Your task to perform on an android device: turn on notifications settings in the gmail app Image 0: 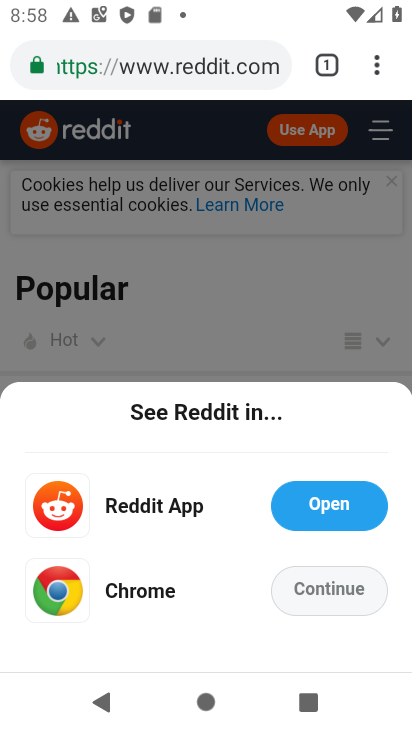
Step 0: press home button
Your task to perform on an android device: turn on notifications settings in the gmail app Image 1: 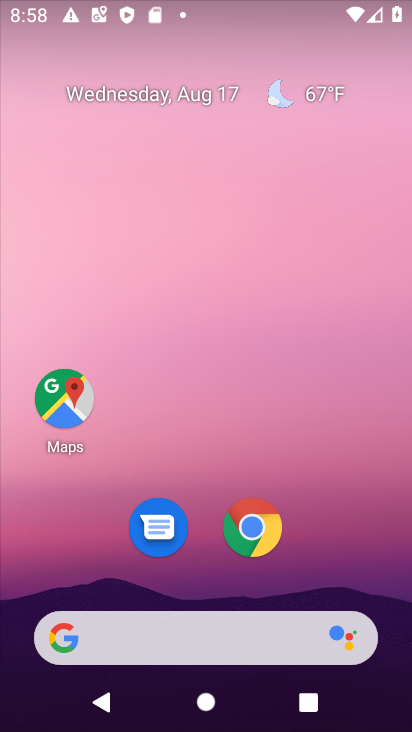
Step 1: drag from (192, 597) to (247, 109)
Your task to perform on an android device: turn on notifications settings in the gmail app Image 2: 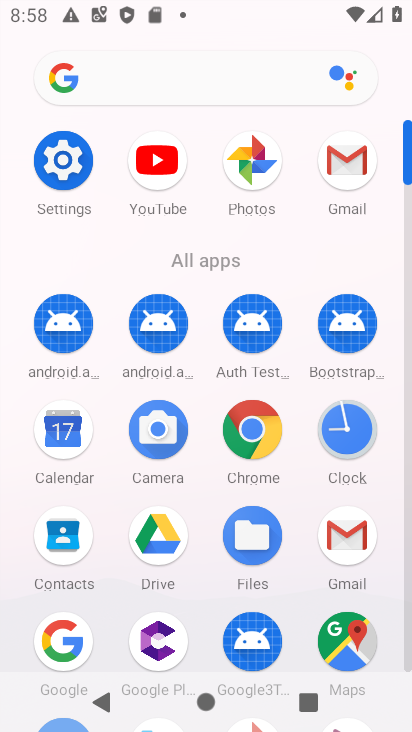
Step 2: click (69, 157)
Your task to perform on an android device: turn on notifications settings in the gmail app Image 3: 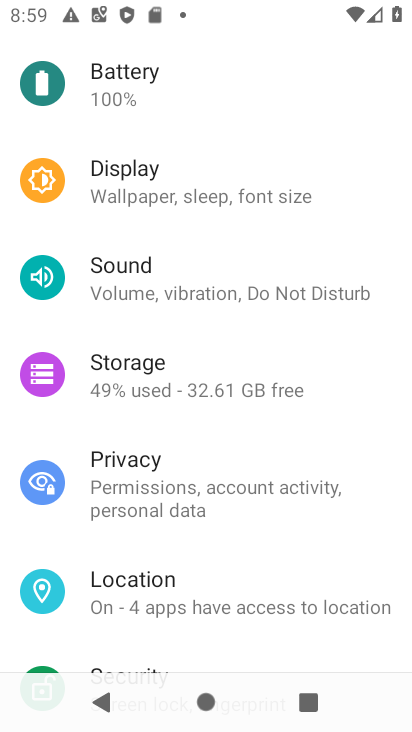
Step 3: drag from (136, 123) to (67, 615)
Your task to perform on an android device: turn on notifications settings in the gmail app Image 4: 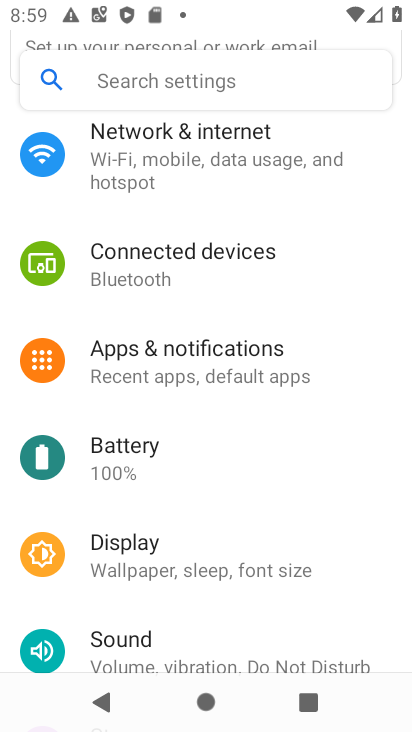
Step 4: click (185, 374)
Your task to perform on an android device: turn on notifications settings in the gmail app Image 5: 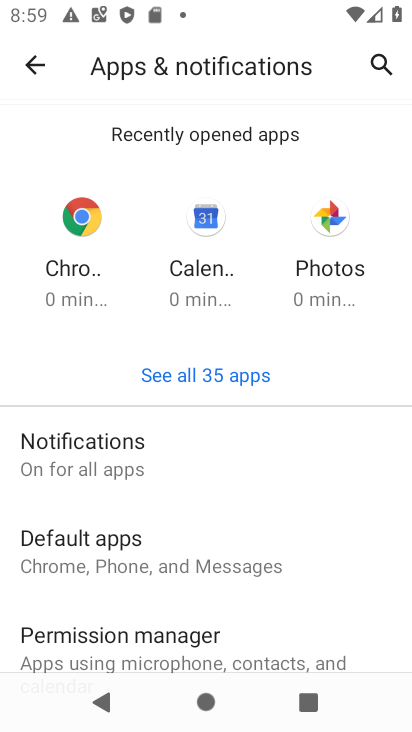
Step 5: click (152, 446)
Your task to perform on an android device: turn on notifications settings in the gmail app Image 6: 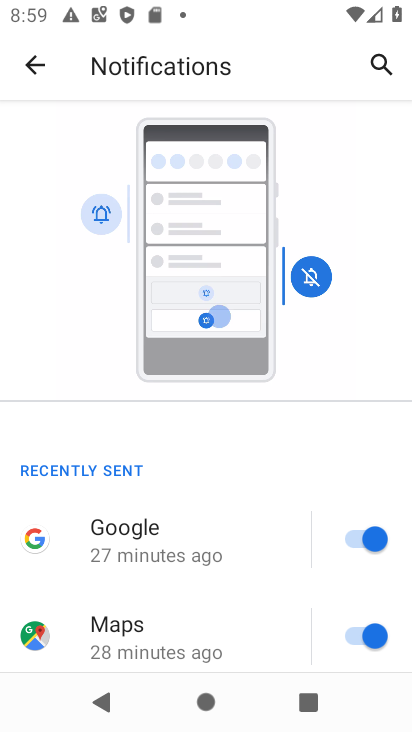
Step 6: click (37, 59)
Your task to perform on an android device: turn on notifications settings in the gmail app Image 7: 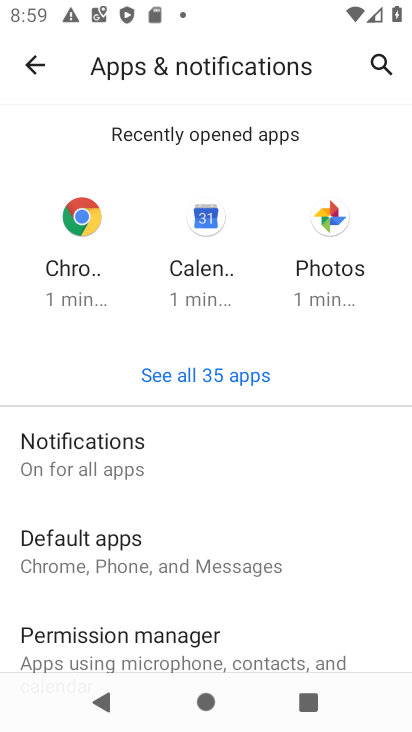
Step 7: click (227, 373)
Your task to perform on an android device: turn on notifications settings in the gmail app Image 8: 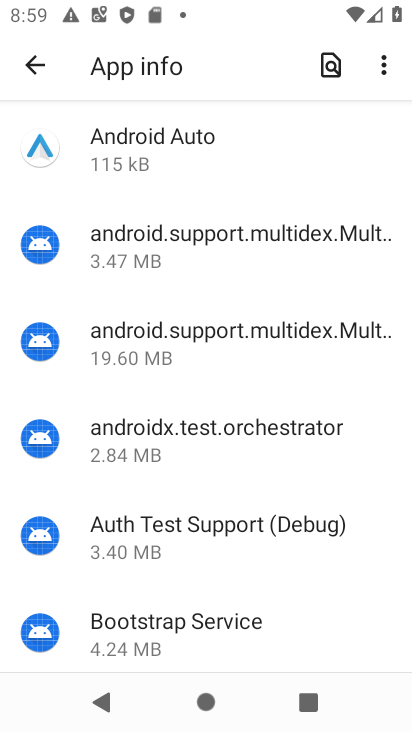
Step 8: drag from (282, 638) to (285, 87)
Your task to perform on an android device: turn on notifications settings in the gmail app Image 9: 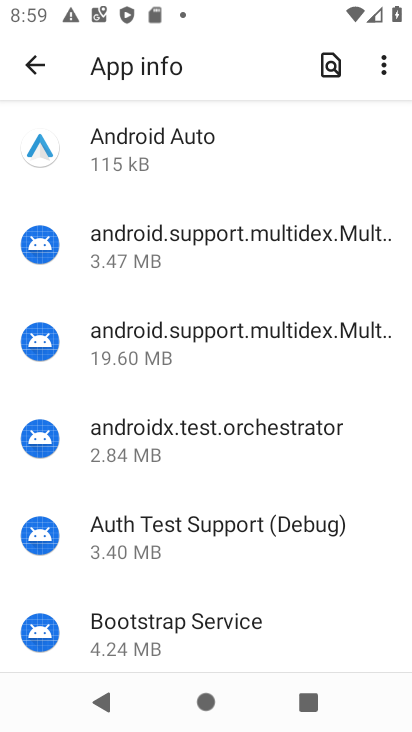
Step 9: drag from (247, 655) to (262, 76)
Your task to perform on an android device: turn on notifications settings in the gmail app Image 10: 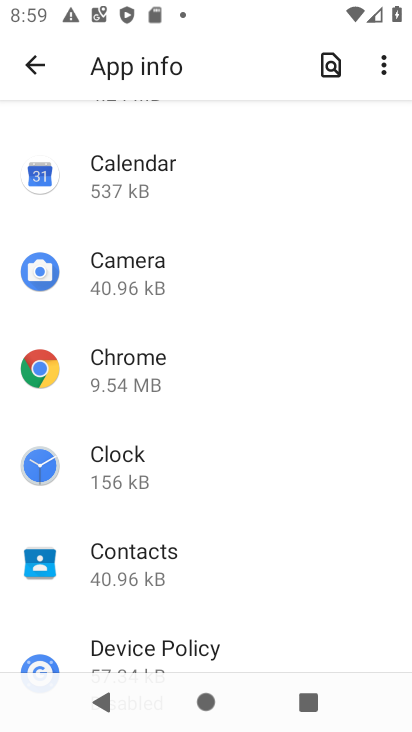
Step 10: drag from (183, 611) to (168, 26)
Your task to perform on an android device: turn on notifications settings in the gmail app Image 11: 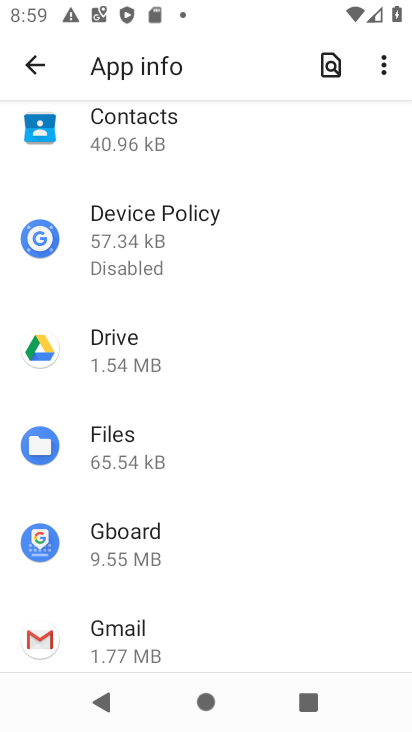
Step 11: click (166, 646)
Your task to perform on an android device: turn on notifications settings in the gmail app Image 12: 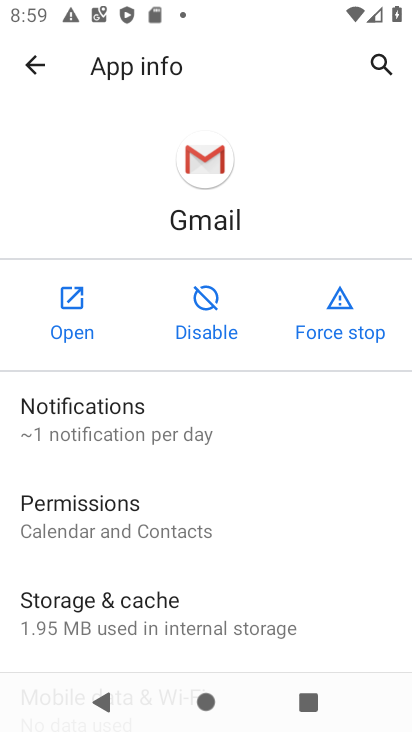
Step 12: click (108, 409)
Your task to perform on an android device: turn on notifications settings in the gmail app Image 13: 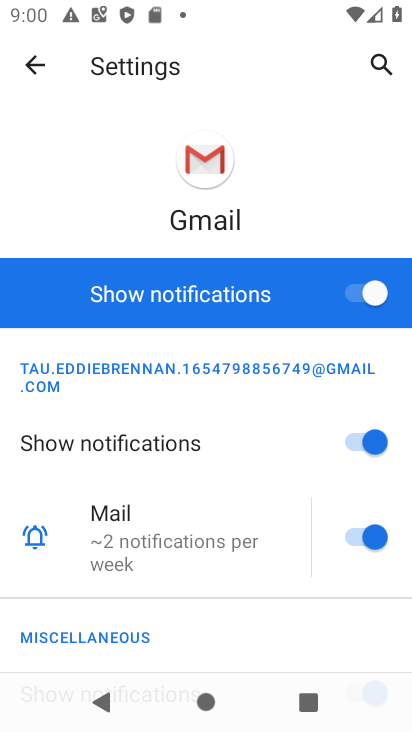
Step 13: task complete